Your task to perform on an android device: turn off picture-in-picture Image 0: 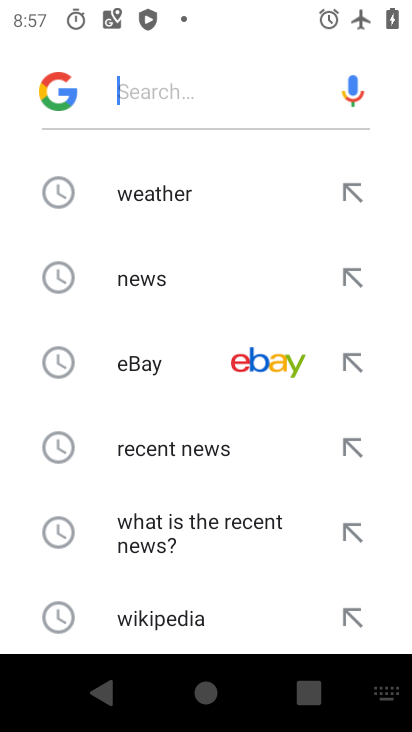
Step 0: press home button
Your task to perform on an android device: turn off picture-in-picture Image 1: 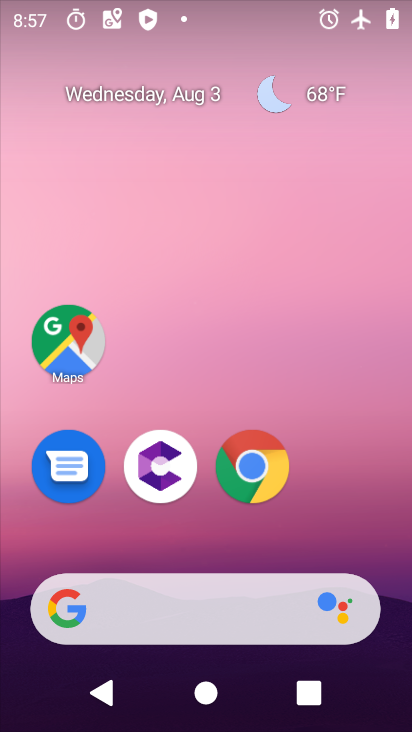
Step 1: drag from (353, 502) to (354, 402)
Your task to perform on an android device: turn off picture-in-picture Image 2: 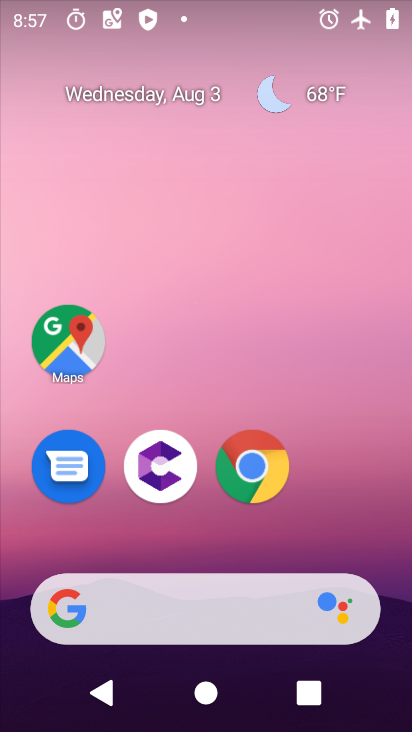
Step 2: click (246, 458)
Your task to perform on an android device: turn off picture-in-picture Image 3: 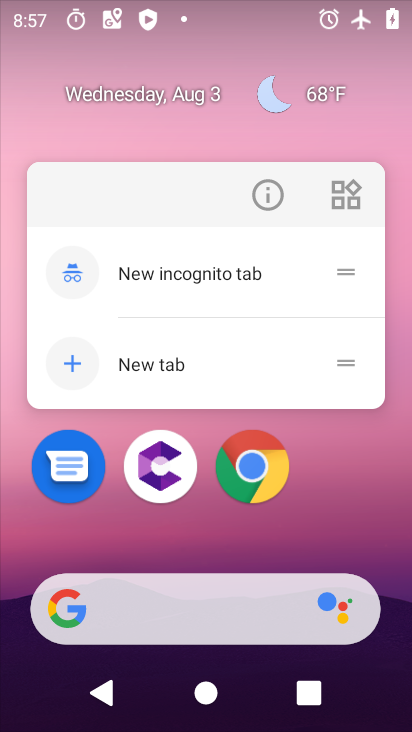
Step 3: click (268, 209)
Your task to perform on an android device: turn off picture-in-picture Image 4: 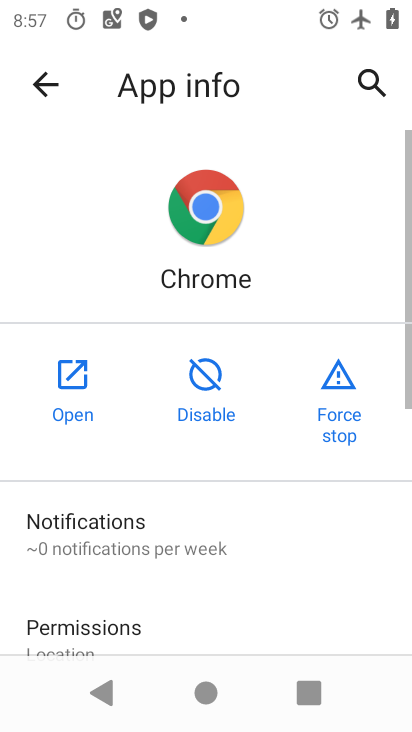
Step 4: drag from (308, 545) to (406, 222)
Your task to perform on an android device: turn off picture-in-picture Image 5: 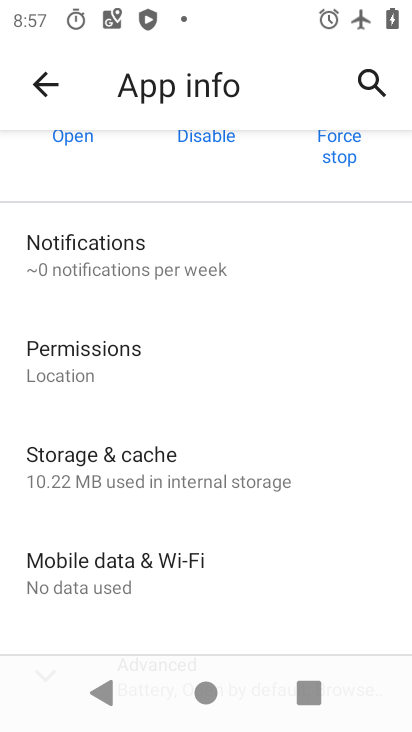
Step 5: drag from (229, 569) to (342, 334)
Your task to perform on an android device: turn off picture-in-picture Image 6: 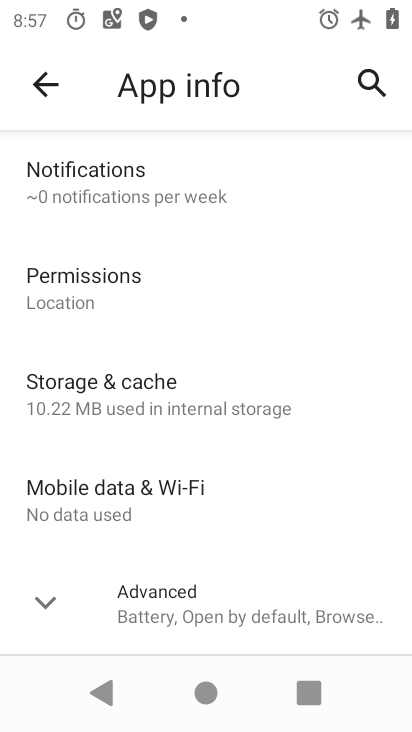
Step 6: click (142, 579)
Your task to perform on an android device: turn off picture-in-picture Image 7: 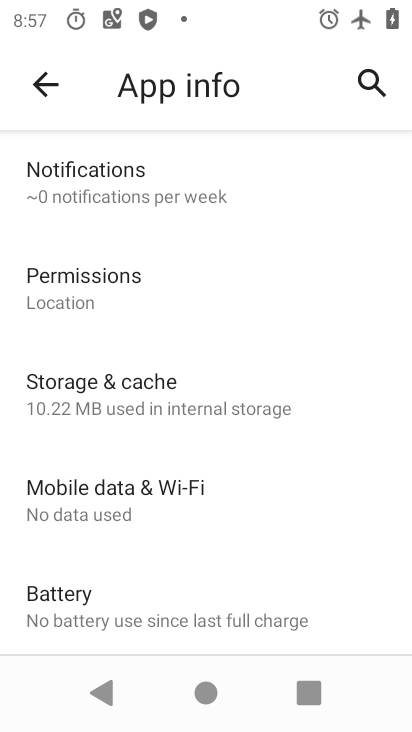
Step 7: drag from (377, 591) to (411, 365)
Your task to perform on an android device: turn off picture-in-picture Image 8: 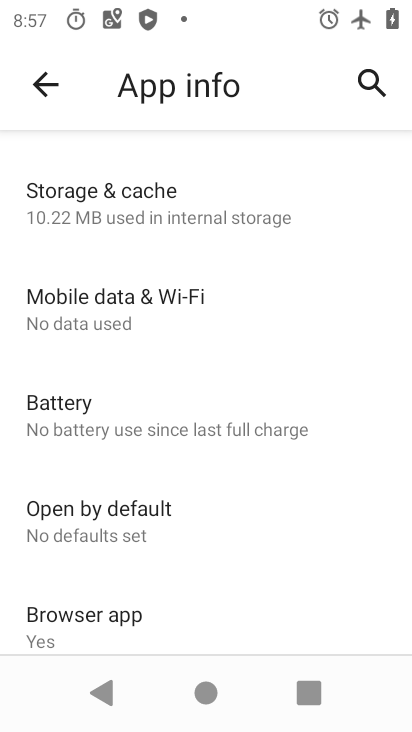
Step 8: drag from (346, 564) to (396, 128)
Your task to perform on an android device: turn off picture-in-picture Image 9: 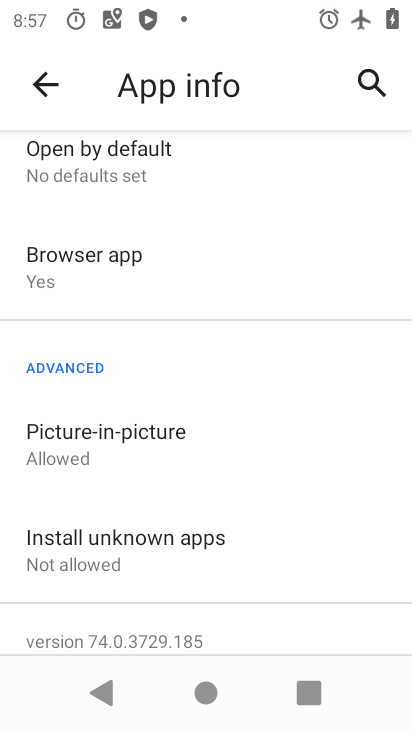
Step 9: click (108, 436)
Your task to perform on an android device: turn off picture-in-picture Image 10: 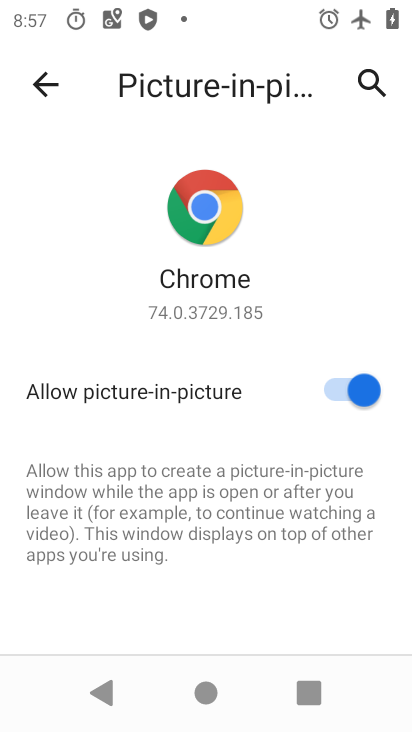
Step 10: click (362, 390)
Your task to perform on an android device: turn off picture-in-picture Image 11: 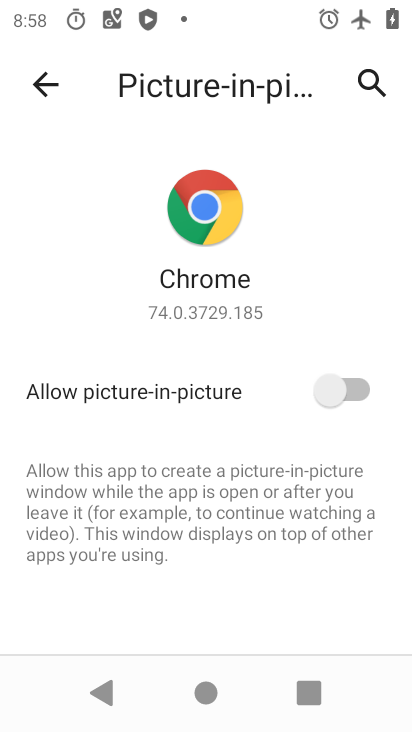
Step 11: task complete